Your task to perform on an android device: turn off picture-in-picture Image 0: 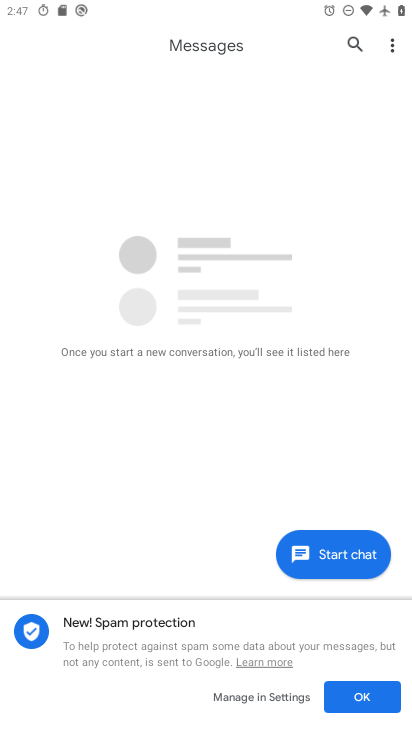
Step 0: press home button
Your task to perform on an android device: turn off picture-in-picture Image 1: 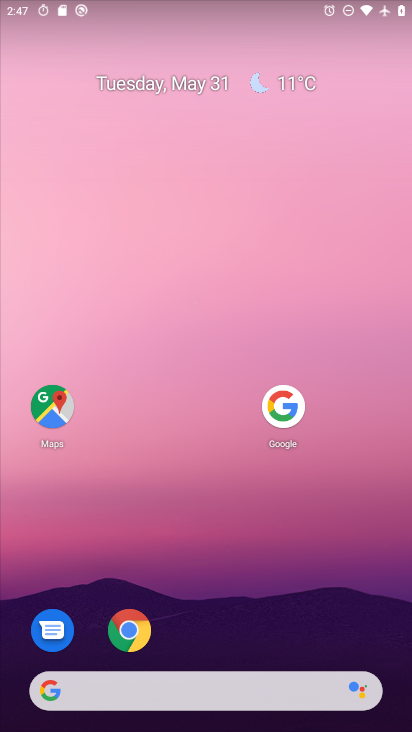
Step 1: click (135, 633)
Your task to perform on an android device: turn off picture-in-picture Image 2: 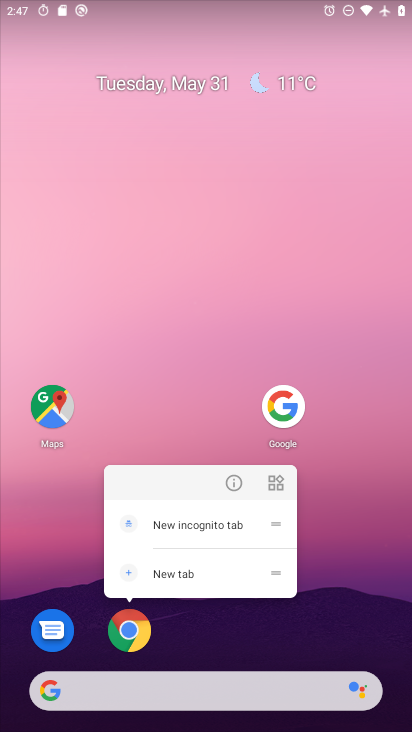
Step 2: click (235, 478)
Your task to perform on an android device: turn off picture-in-picture Image 3: 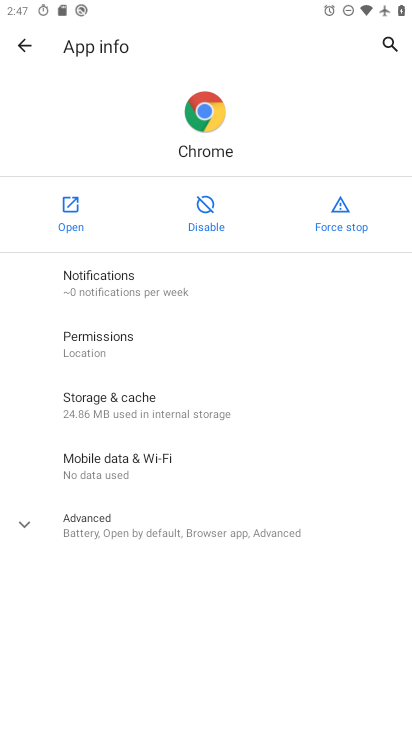
Step 3: click (149, 523)
Your task to perform on an android device: turn off picture-in-picture Image 4: 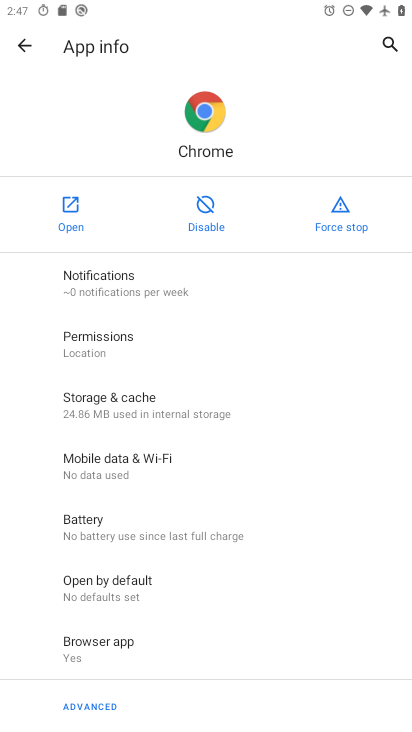
Step 4: drag from (132, 636) to (245, 317)
Your task to perform on an android device: turn off picture-in-picture Image 5: 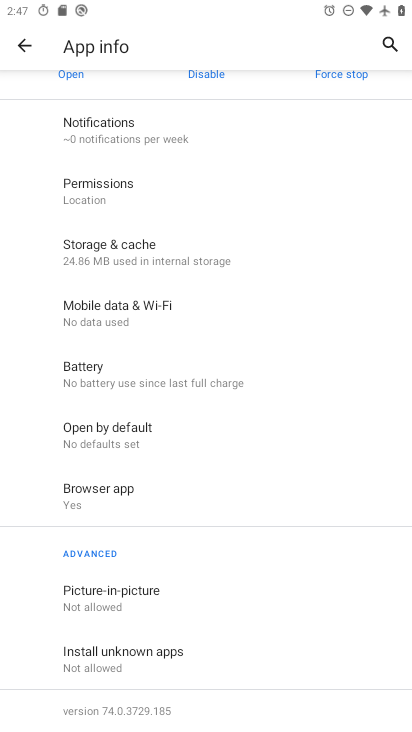
Step 5: click (142, 602)
Your task to perform on an android device: turn off picture-in-picture Image 6: 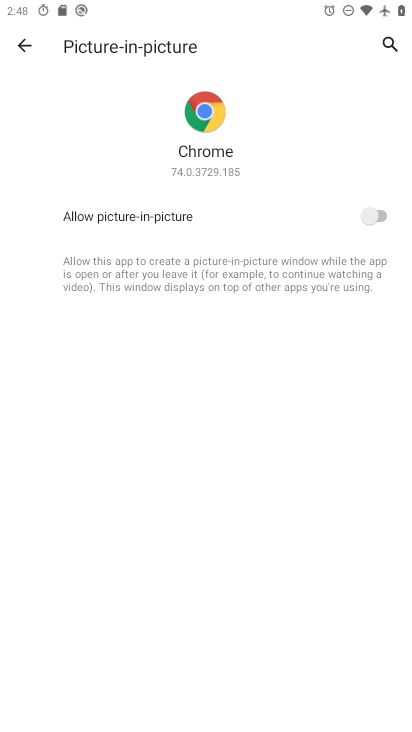
Step 6: task complete